Your task to perform on an android device: Open CNN.com Image 0: 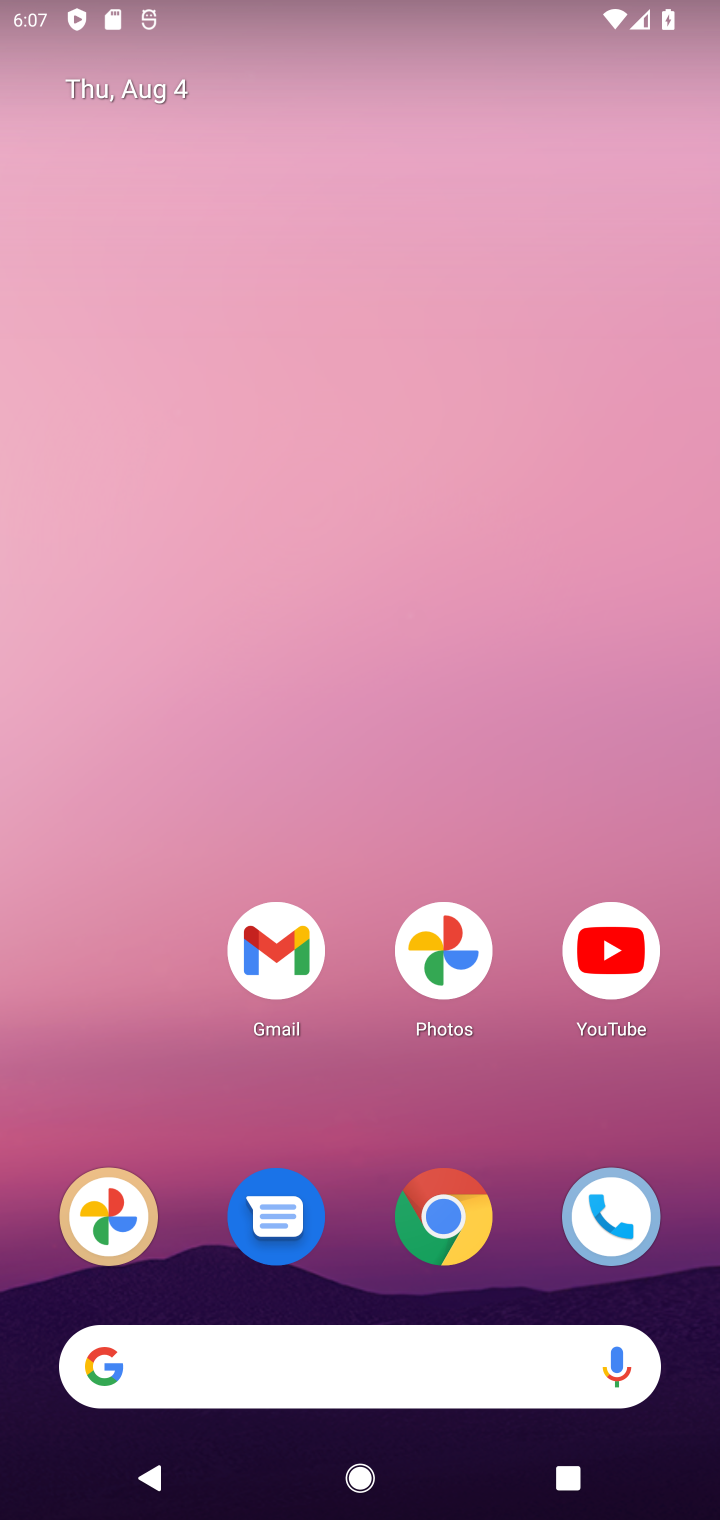
Step 0: click (439, 1232)
Your task to perform on an android device: Open CNN.com Image 1: 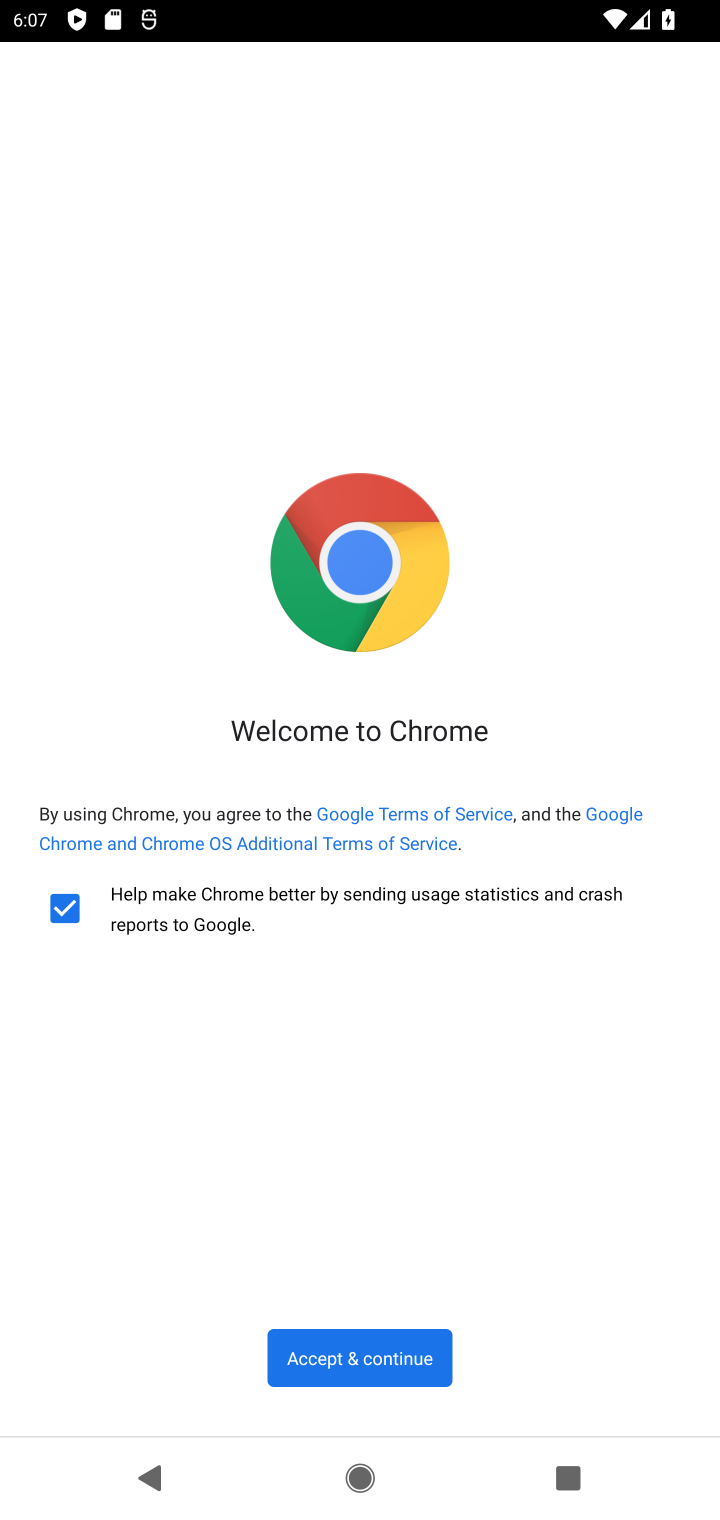
Step 1: click (421, 1380)
Your task to perform on an android device: Open CNN.com Image 2: 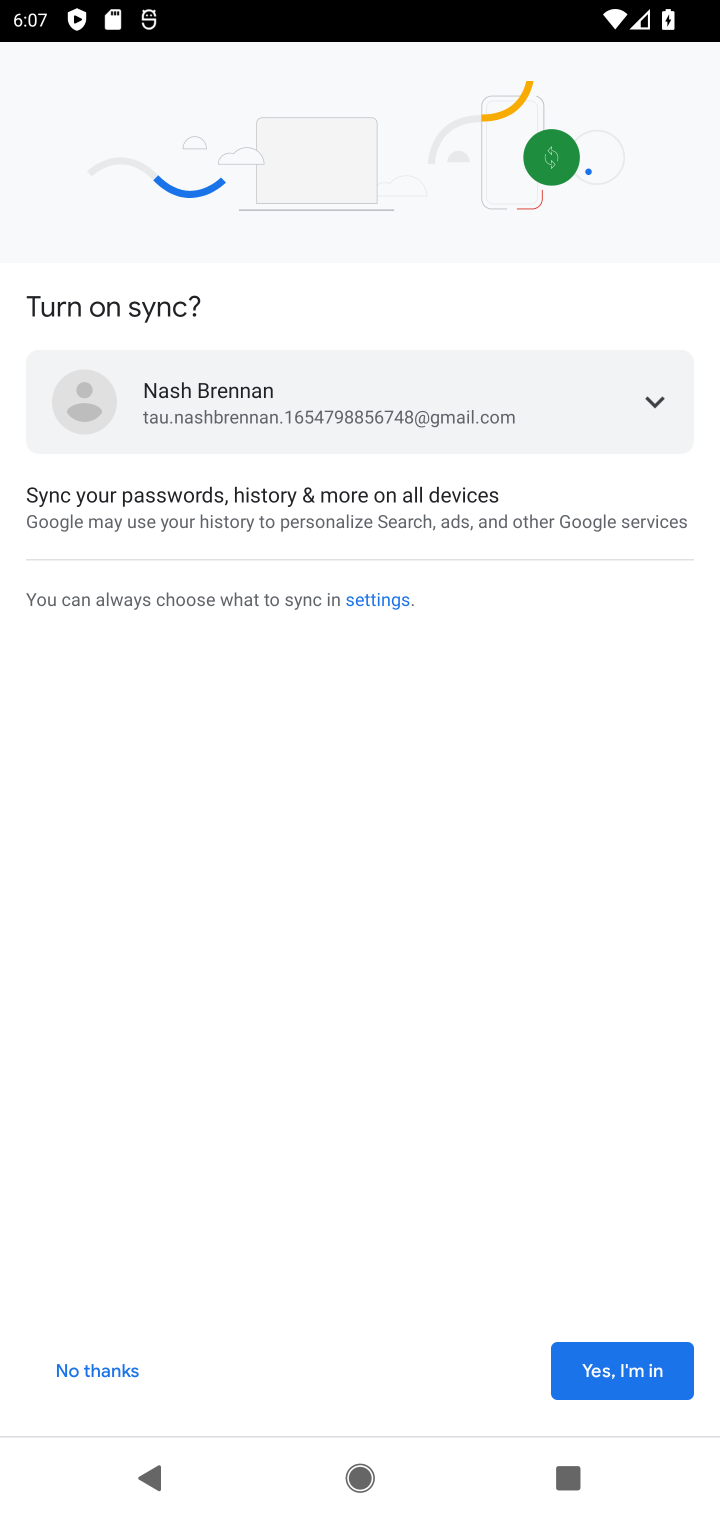
Step 2: click (617, 1376)
Your task to perform on an android device: Open CNN.com Image 3: 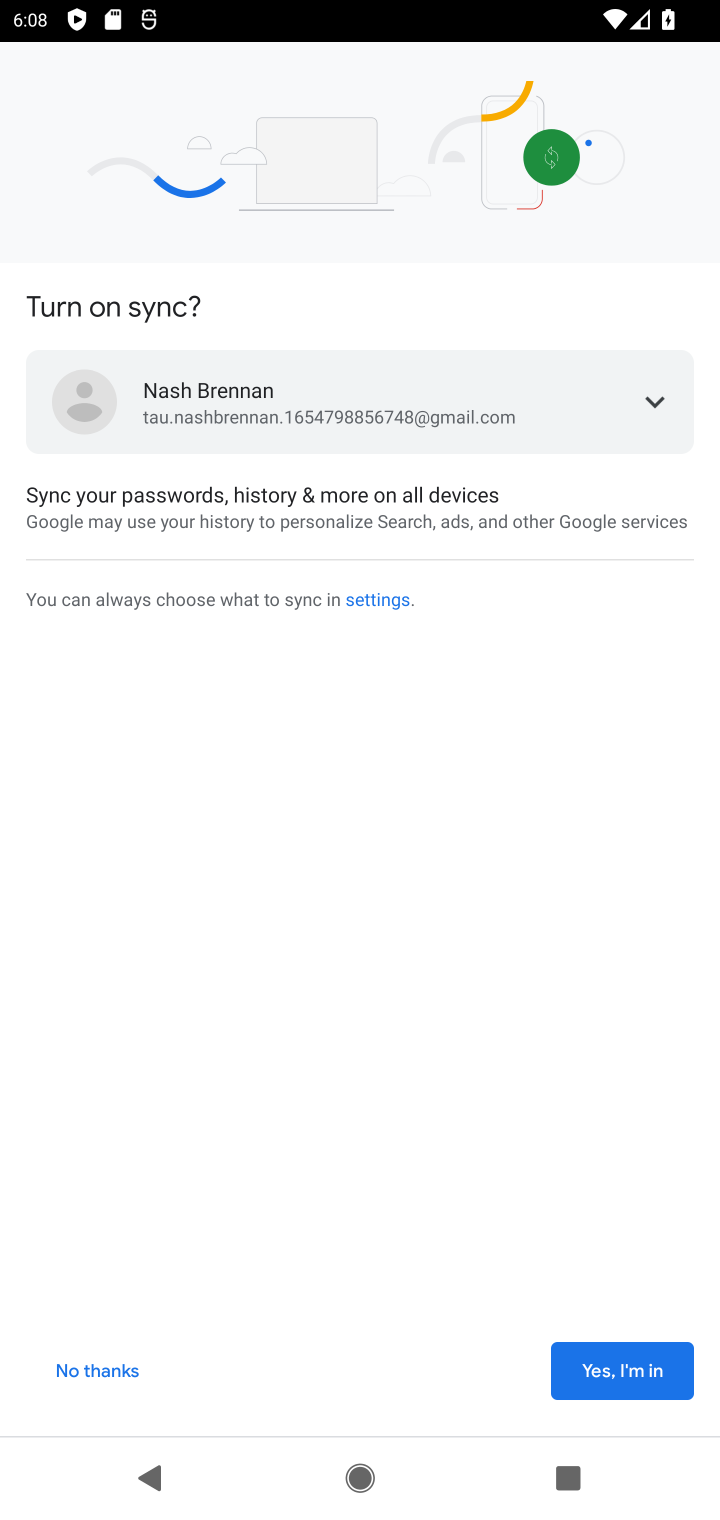
Step 3: click (617, 1376)
Your task to perform on an android device: Open CNN.com Image 4: 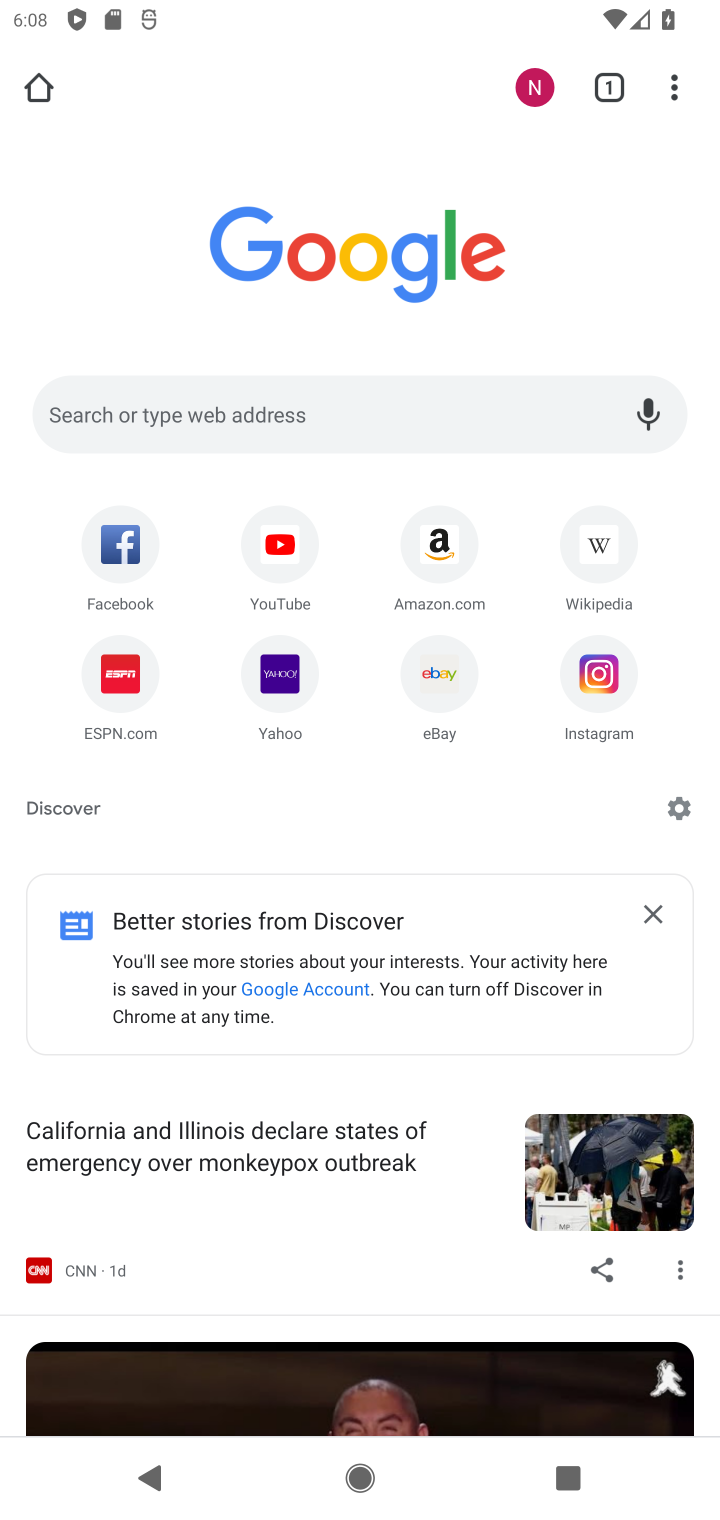
Step 4: click (670, 87)
Your task to perform on an android device: Open CNN.com Image 5: 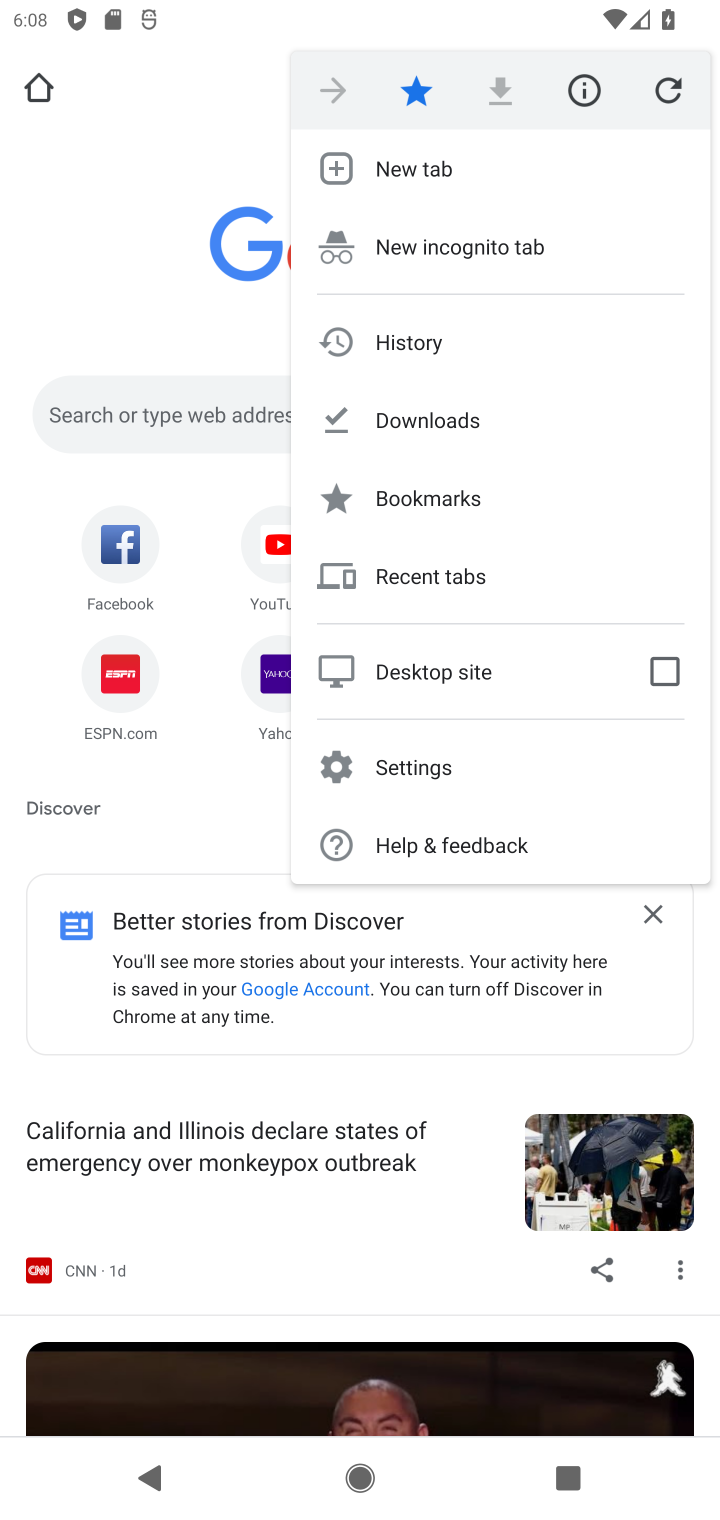
Step 5: click (140, 392)
Your task to perform on an android device: Open CNN.com Image 6: 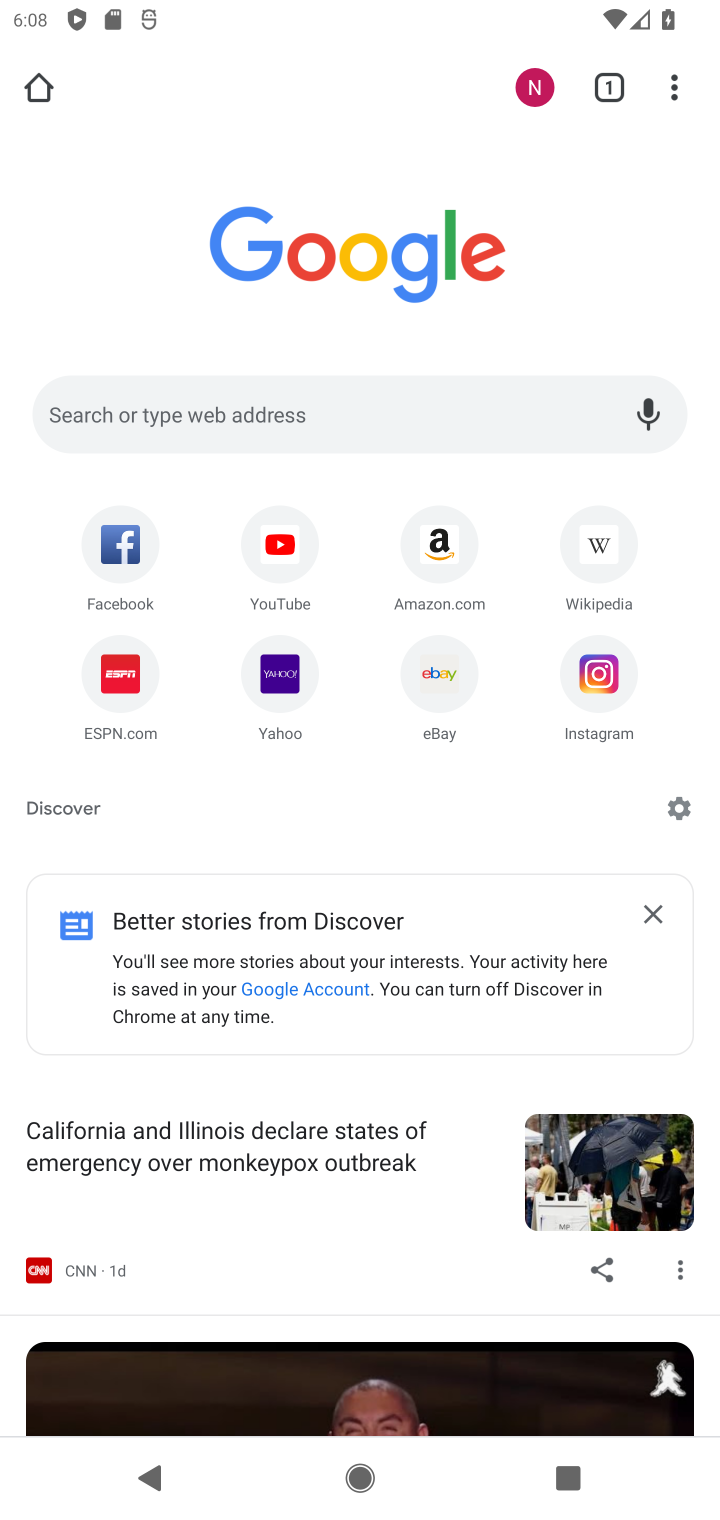
Step 6: click (194, 395)
Your task to perform on an android device: Open CNN.com Image 7: 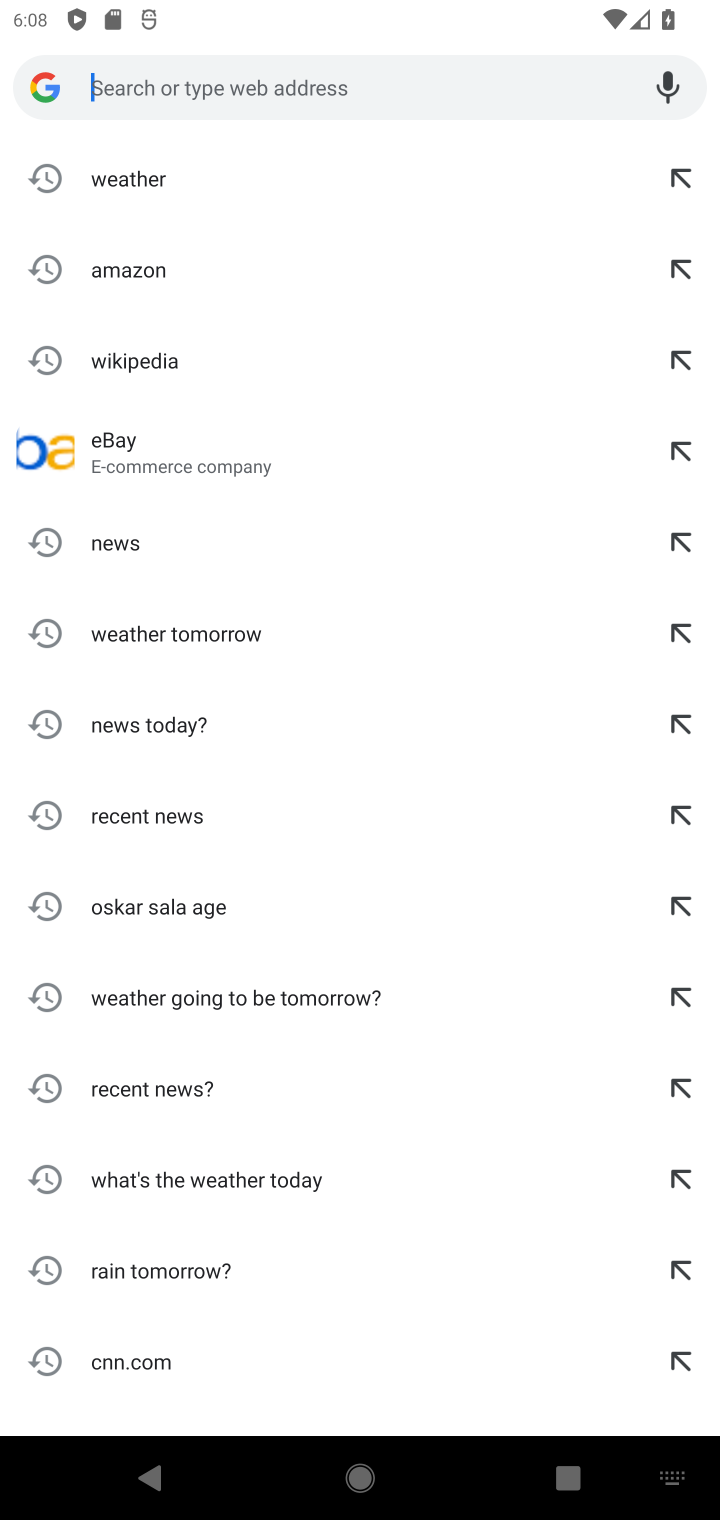
Step 7: type "cnn.com"
Your task to perform on an android device: Open CNN.com Image 8: 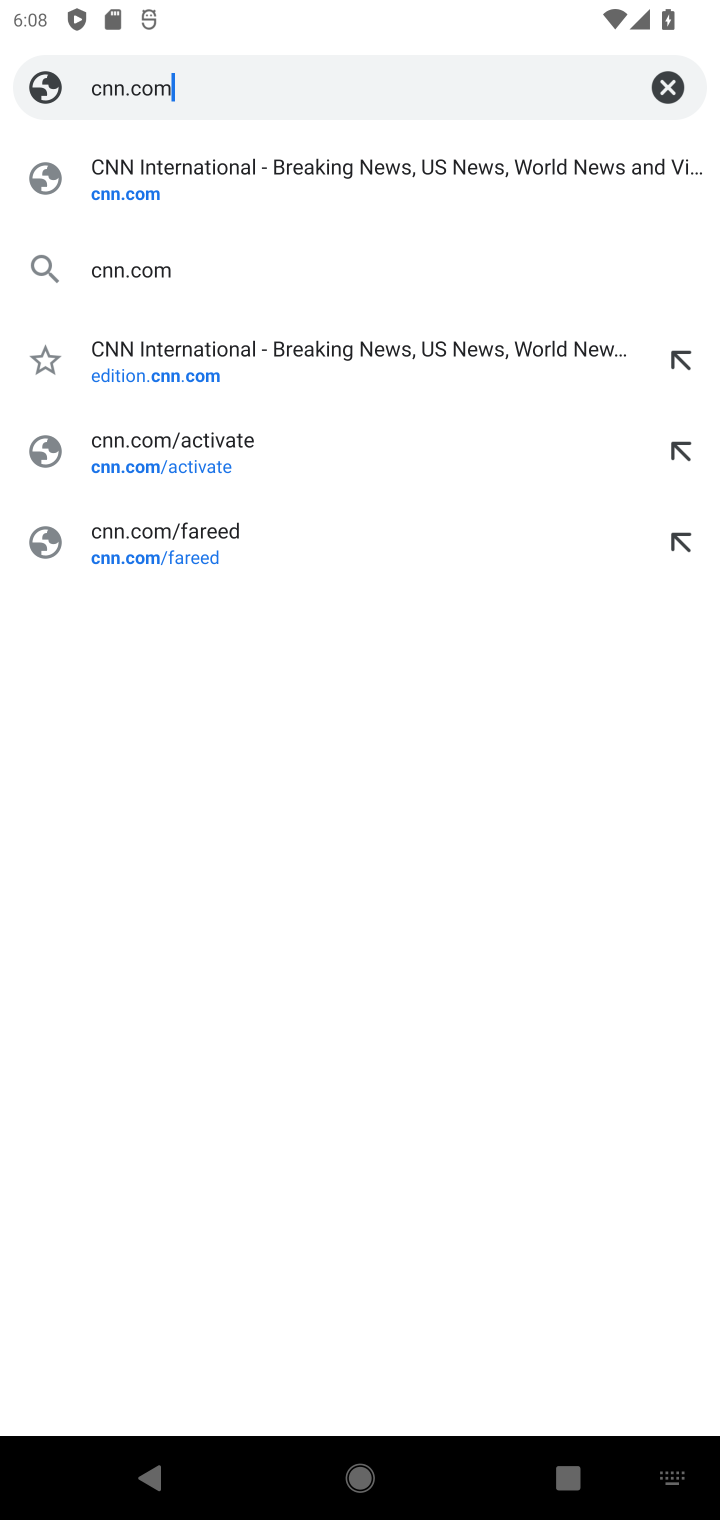
Step 8: click (203, 157)
Your task to perform on an android device: Open CNN.com Image 9: 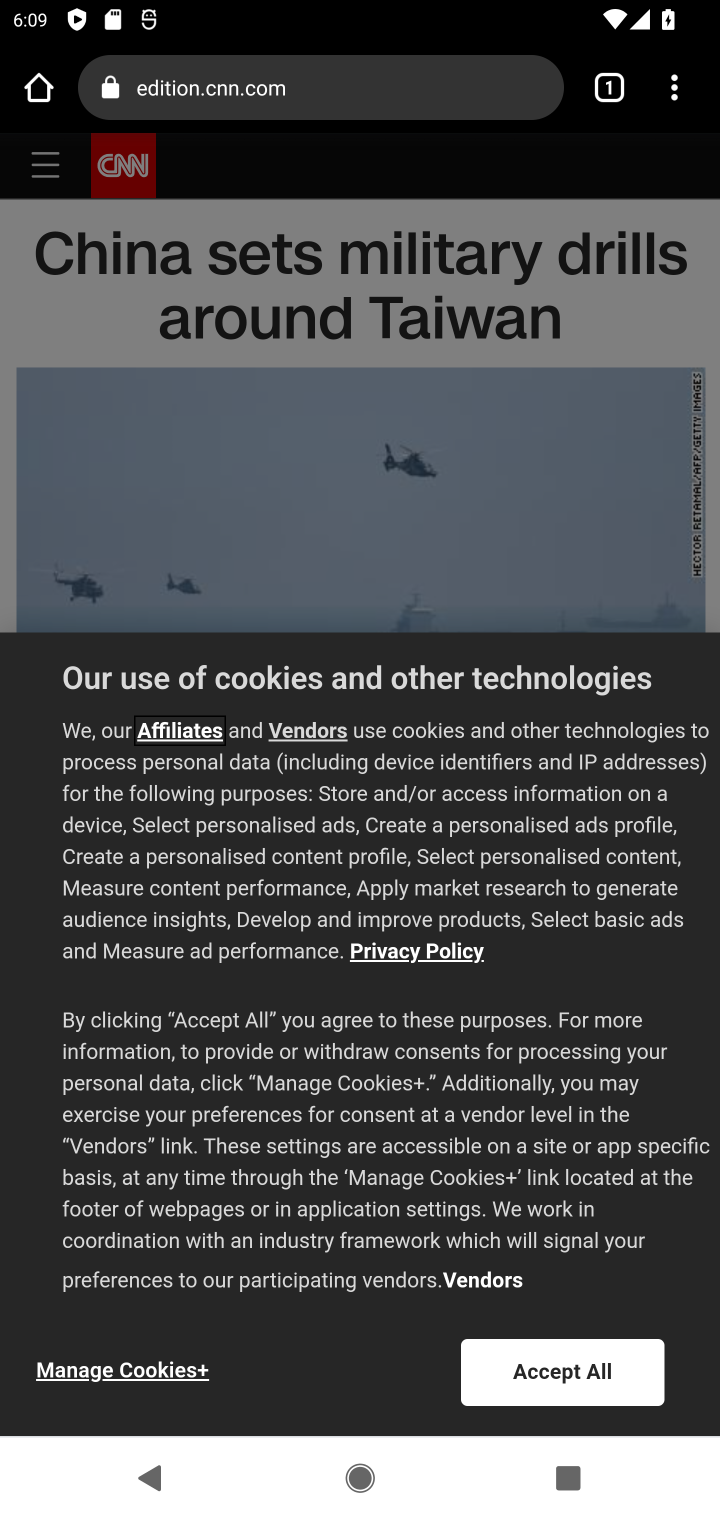
Step 9: task complete